Your task to perform on an android device: see creations saved in the google photos Image 0: 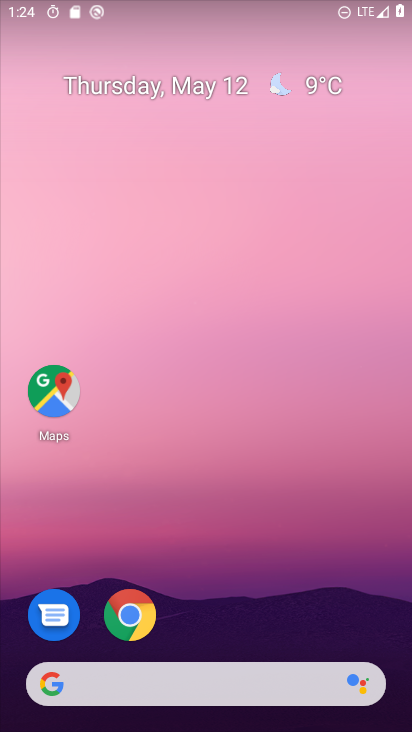
Step 0: drag from (296, 604) to (296, 146)
Your task to perform on an android device: see creations saved in the google photos Image 1: 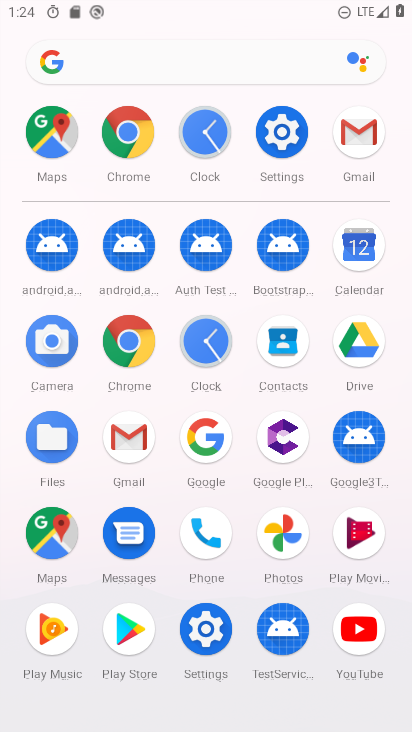
Step 1: click (270, 523)
Your task to perform on an android device: see creations saved in the google photos Image 2: 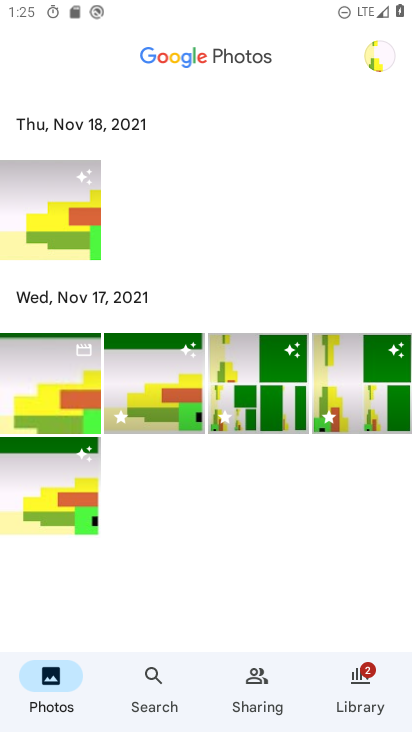
Step 2: click (156, 698)
Your task to perform on an android device: see creations saved in the google photos Image 3: 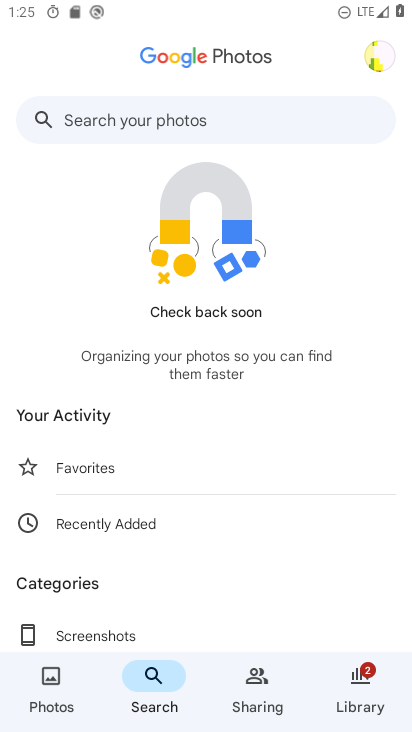
Step 3: click (271, 704)
Your task to perform on an android device: see creations saved in the google photos Image 4: 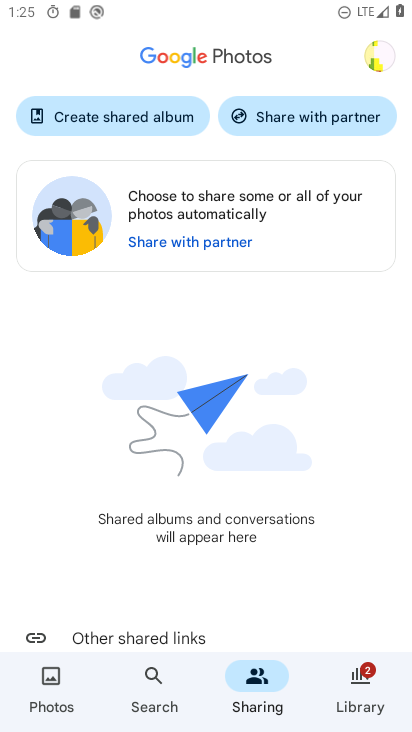
Step 4: click (370, 678)
Your task to perform on an android device: see creations saved in the google photos Image 5: 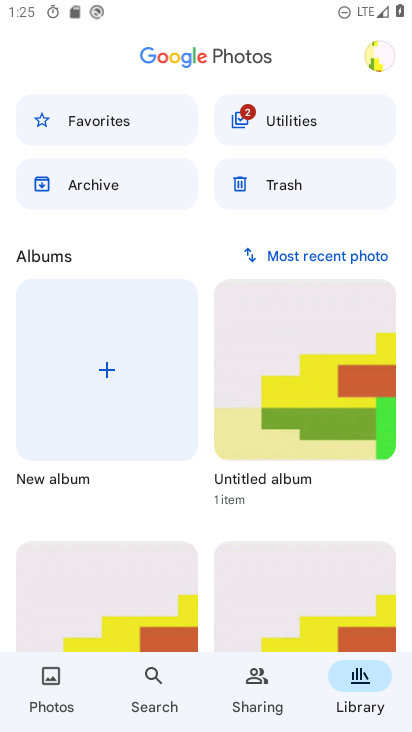
Step 5: task complete